Your task to perform on an android device: Open network settings Image 0: 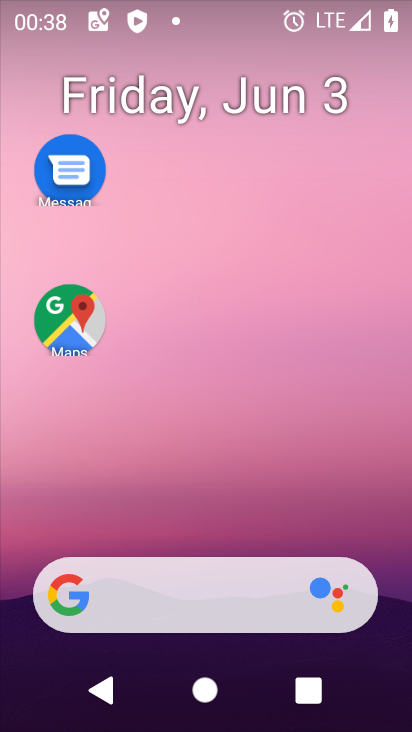
Step 0: press home button
Your task to perform on an android device: Open network settings Image 1: 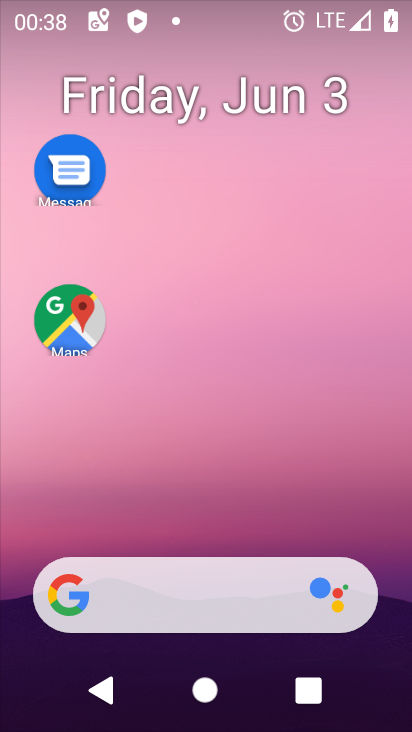
Step 1: drag from (221, 535) to (212, 3)
Your task to perform on an android device: Open network settings Image 2: 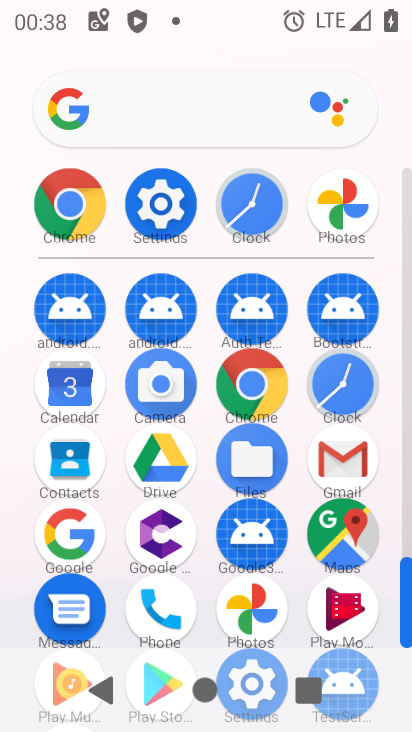
Step 2: click (124, 204)
Your task to perform on an android device: Open network settings Image 3: 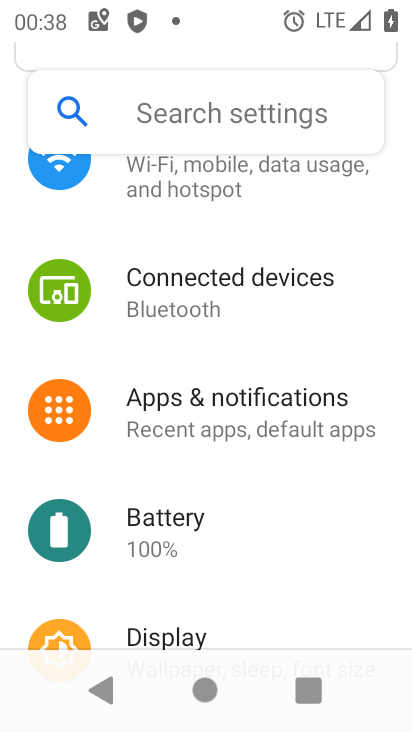
Step 3: drag from (252, 295) to (250, 731)
Your task to perform on an android device: Open network settings Image 4: 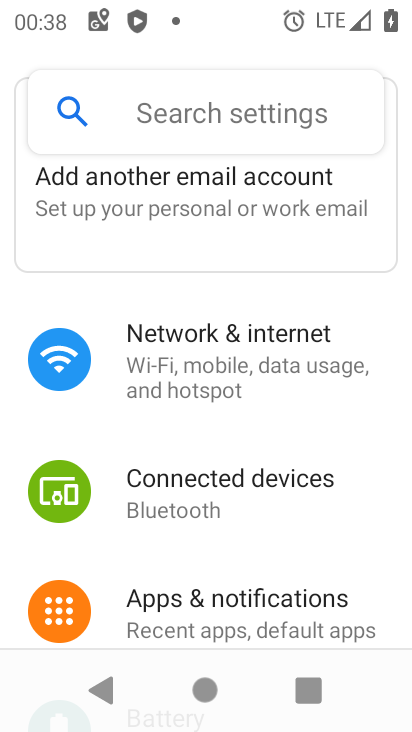
Step 4: click (266, 322)
Your task to perform on an android device: Open network settings Image 5: 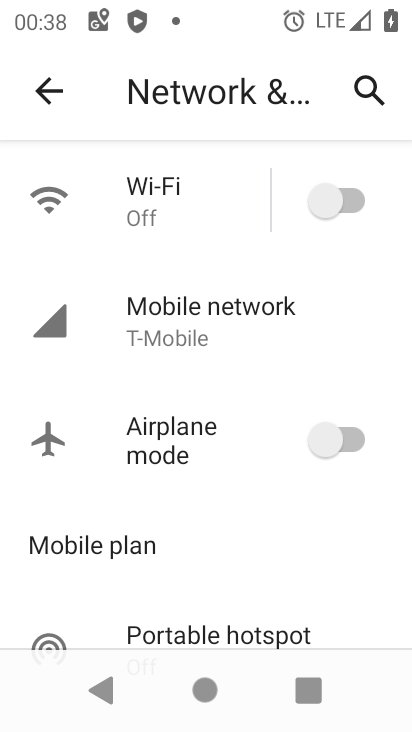
Step 5: task complete